Your task to perform on an android device: Open Chrome and go to settings Image 0: 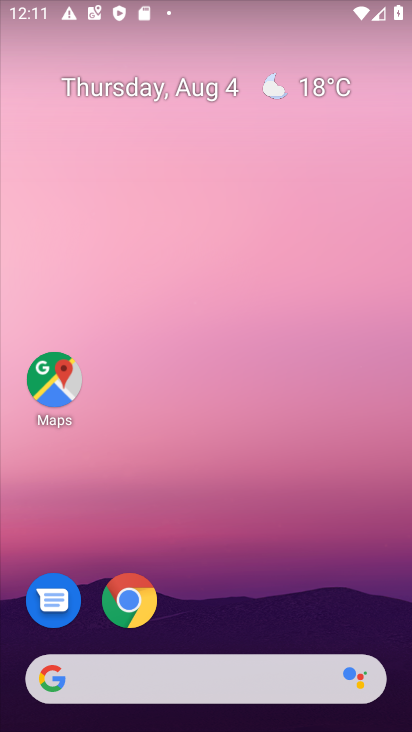
Step 0: click (129, 604)
Your task to perform on an android device: Open Chrome and go to settings Image 1: 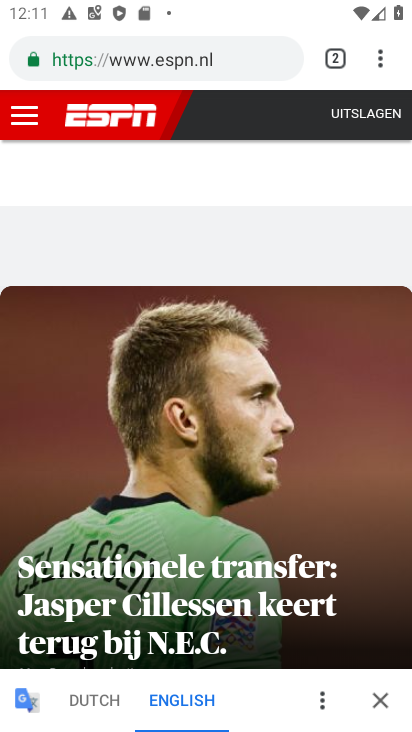
Step 1: task complete